Your task to perform on an android device: see sites visited before in the chrome app Image 0: 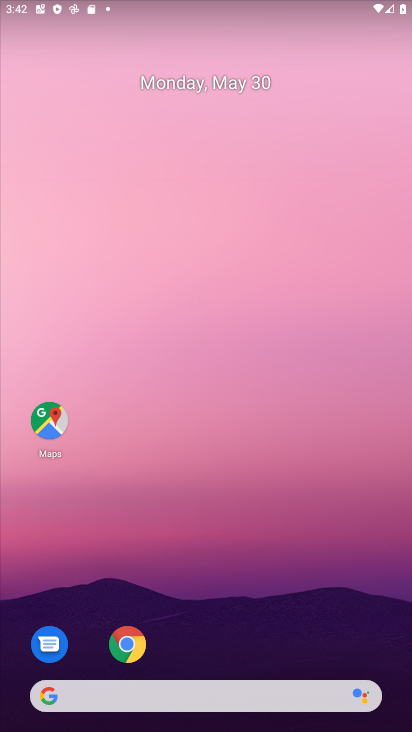
Step 0: click (134, 627)
Your task to perform on an android device: see sites visited before in the chrome app Image 1: 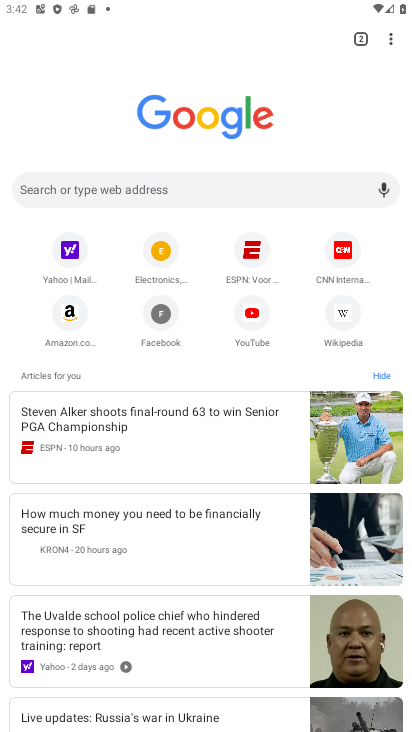
Step 1: click (389, 44)
Your task to perform on an android device: see sites visited before in the chrome app Image 2: 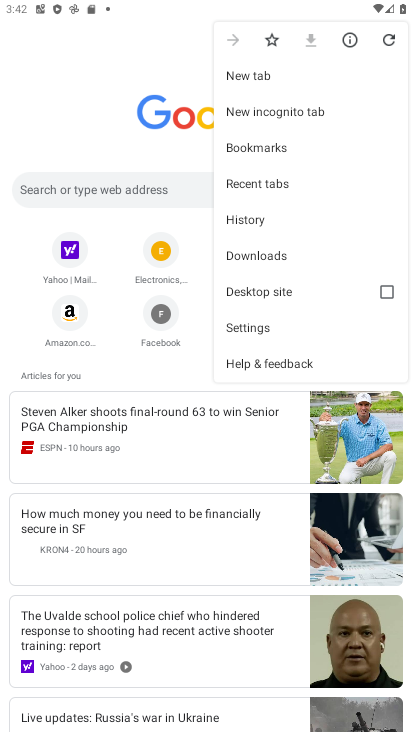
Step 2: click (281, 184)
Your task to perform on an android device: see sites visited before in the chrome app Image 3: 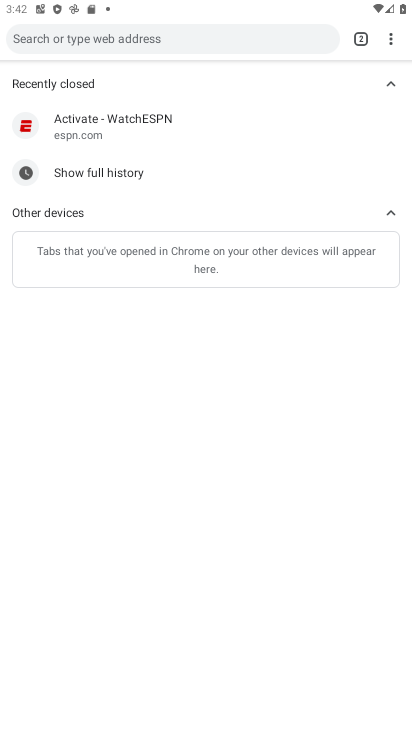
Step 3: task complete